Your task to perform on an android device: Check the news Image 0: 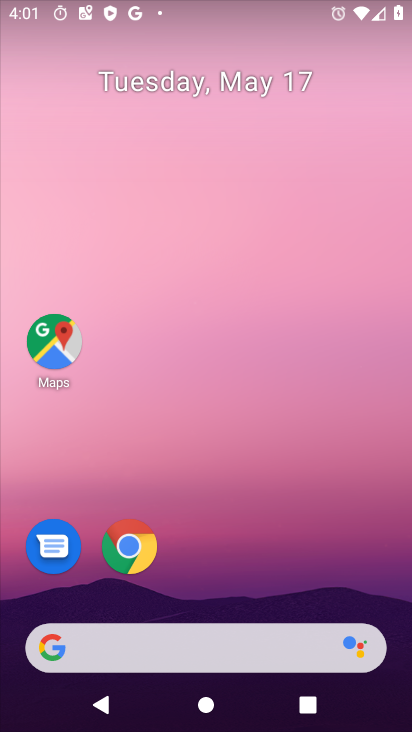
Step 0: drag from (400, 672) to (357, 292)
Your task to perform on an android device: Check the news Image 1: 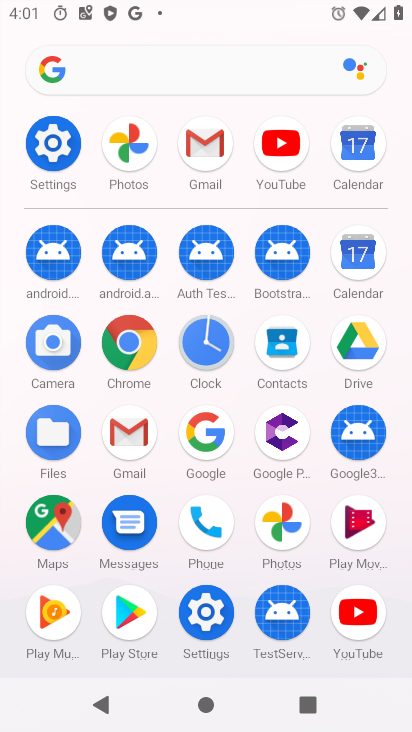
Step 1: click (196, 437)
Your task to perform on an android device: Check the news Image 2: 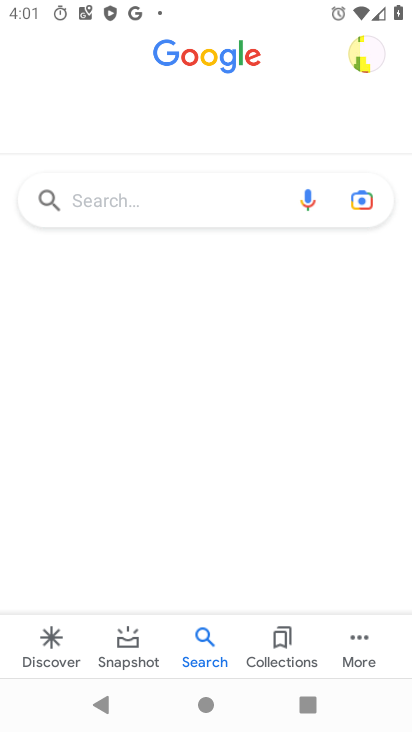
Step 2: task complete